Your task to perform on an android device: Find coffee shops on Maps Image 0: 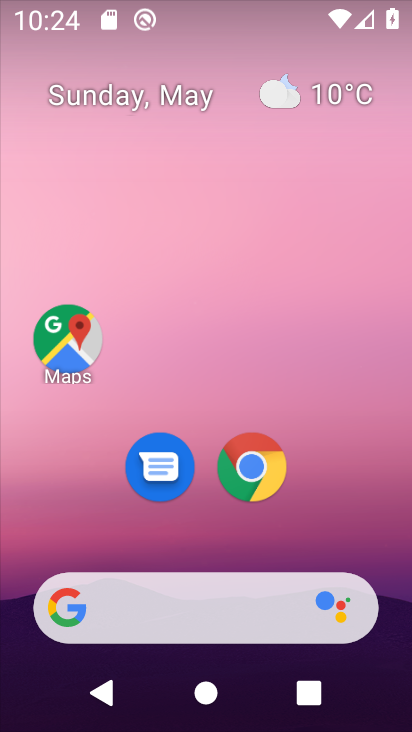
Step 0: click (97, 319)
Your task to perform on an android device: Find coffee shops on Maps Image 1: 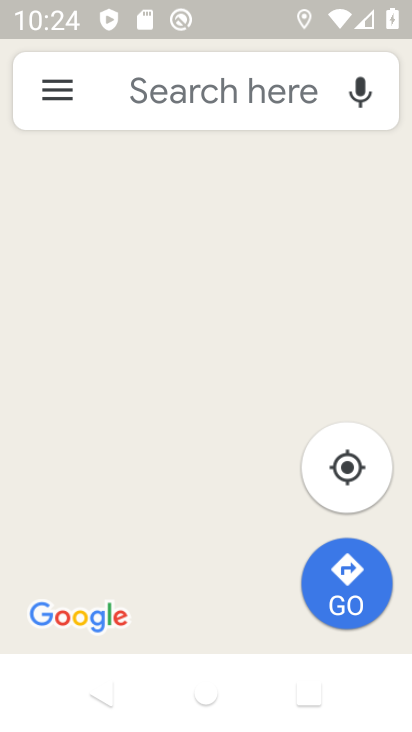
Step 1: click (180, 102)
Your task to perform on an android device: Find coffee shops on Maps Image 2: 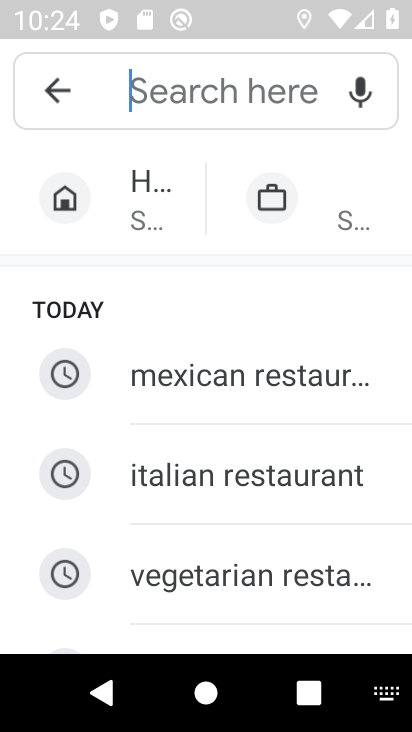
Step 2: type "coffee shops"
Your task to perform on an android device: Find coffee shops on Maps Image 3: 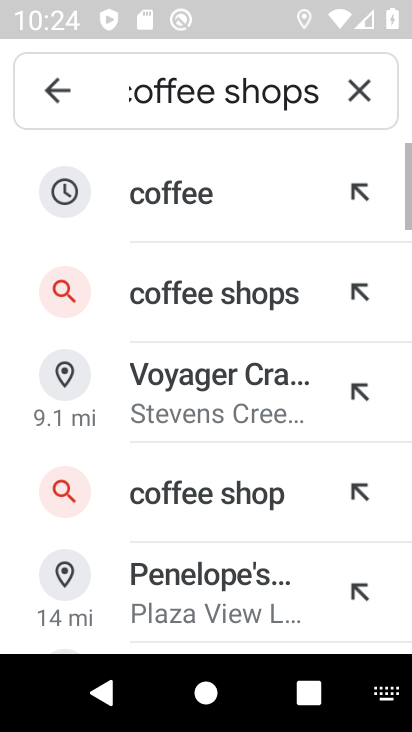
Step 3: task complete